Your task to perform on an android device: turn off javascript in the chrome app Image 0: 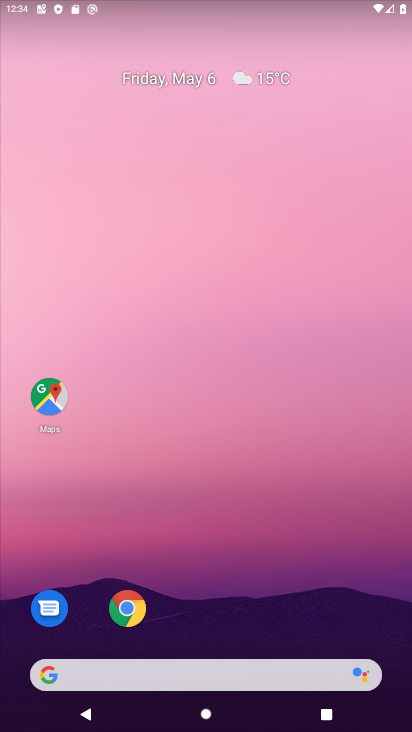
Step 0: drag from (190, 486) to (118, 19)
Your task to perform on an android device: turn off javascript in the chrome app Image 1: 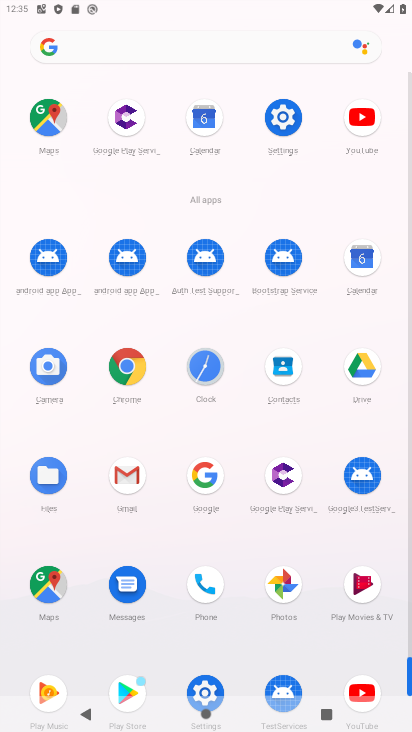
Step 1: drag from (253, 608) to (242, 133)
Your task to perform on an android device: turn off javascript in the chrome app Image 2: 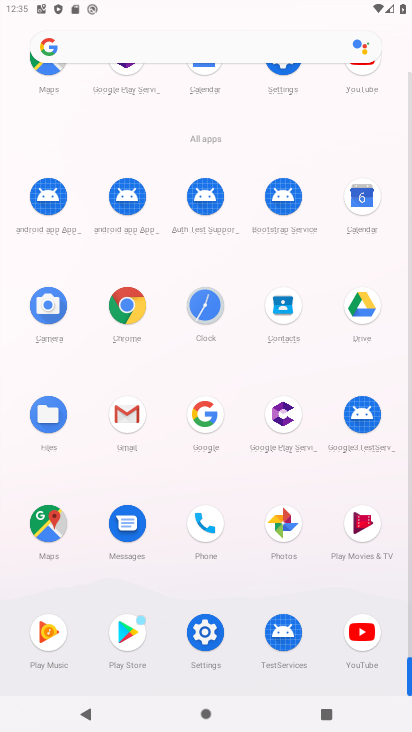
Step 2: click (198, 642)
Your task to perform on an android device: turn off javascript in the chrome app Image 3: 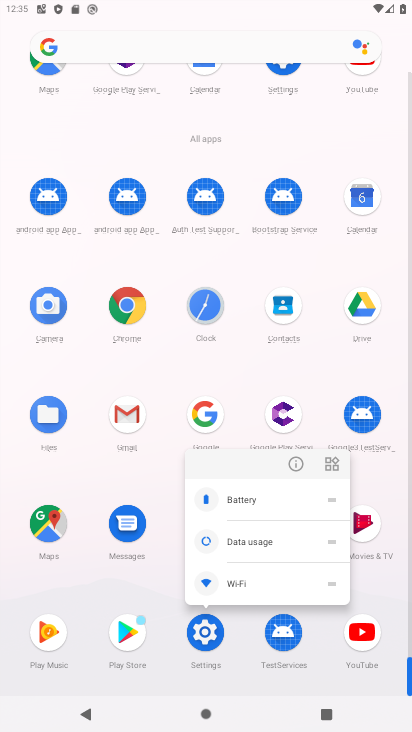
Step 3: click (133, 298)
Your task to perform on an android device: turn off javascript in the chrome app Image 4: 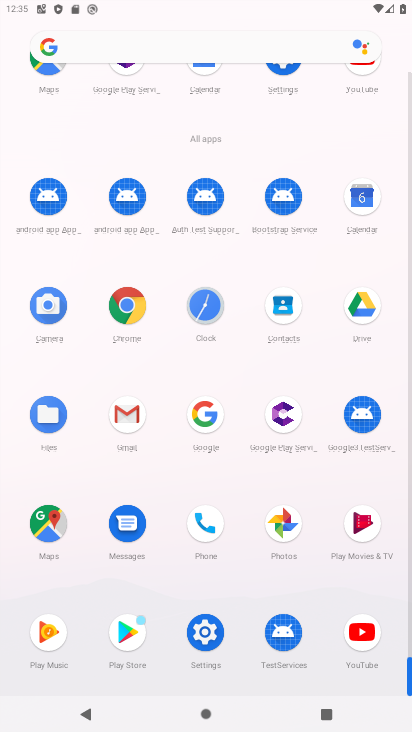
Step 4: click (129, 314)
Your task to perform on an android device: turn off javascript in the chrome app Image 5: 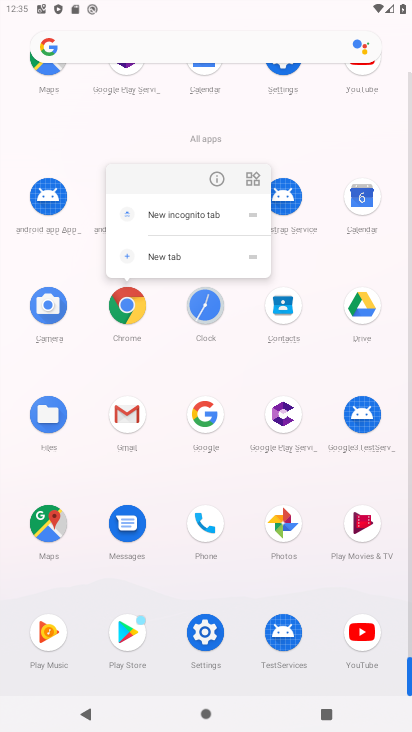
Step 5: click (217, 187)
Your task to perform on an android device: turn off javascript in the chrome app Image 6: 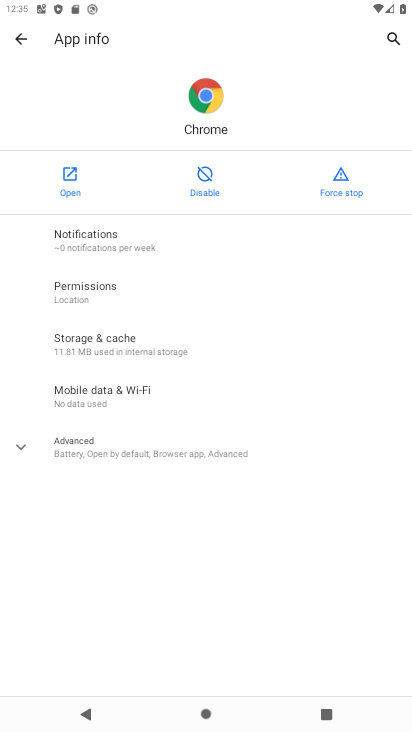
Step 6: drag from (156, 459) to (213, 141)
Your task to perform on an android device: turn off javascript in the chrome app Image 7: 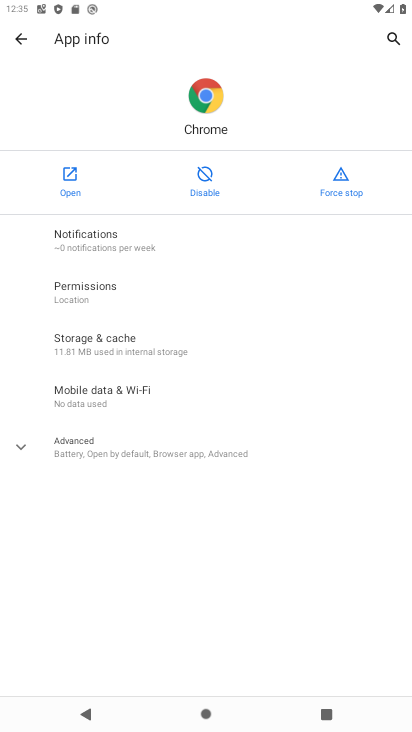
Step 7: click (70, 170)
Your task to perform on an android device: turn off javascript in the chrome app Image 8: 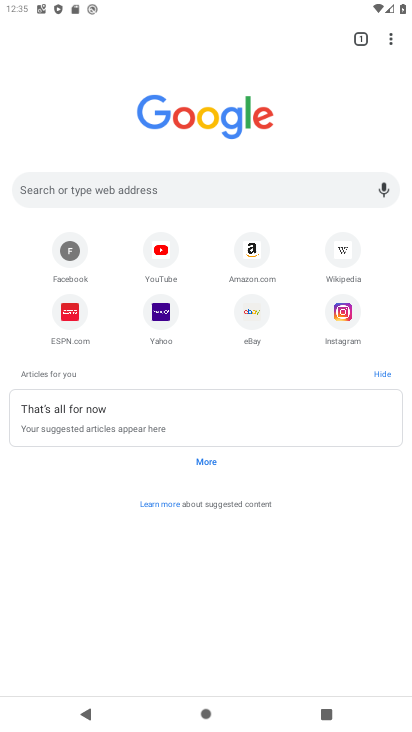
Step 8: click (385, 43)
Your task to perform on an android device: turn off javascript in the chrome app Image 9: 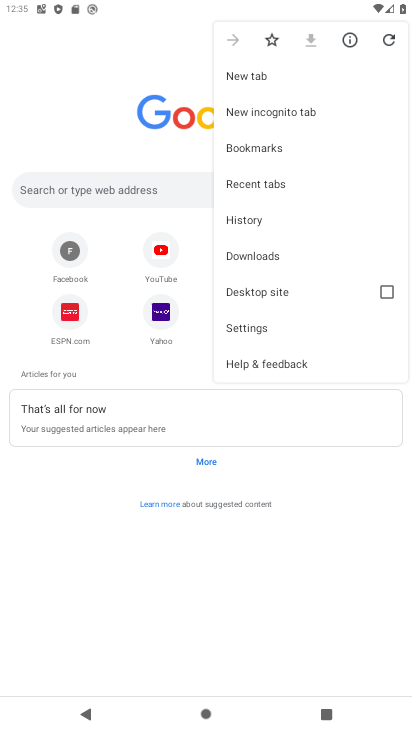
Step 9: click (257, 325)
Your task to perform on an android device: turn off javascript in the chrome app Image 10: 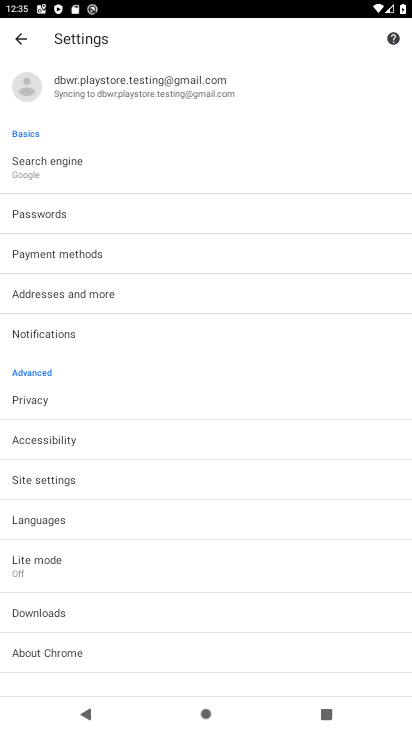
Step 10: click (97, 476)
Your task to perform on an android device: turn off javascript in the chrome app Image 11: 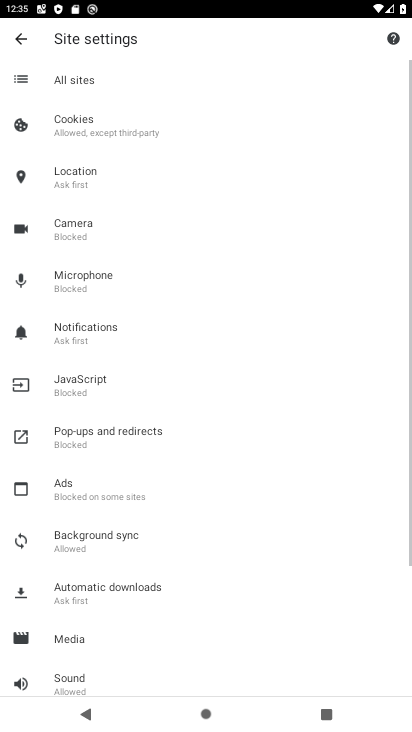
Step 11: click (137, 362)
Your task to perform on an android device: turn off javascript in the chrome app Image 12: 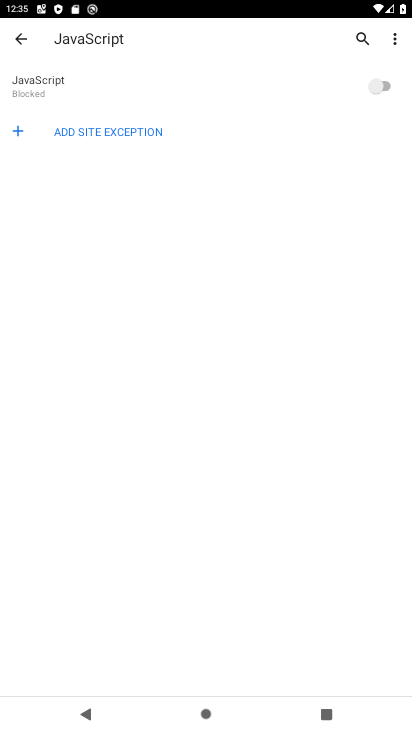
Step 12: task complete